Your task to perform on an android device: Go to sound settings Image 0: 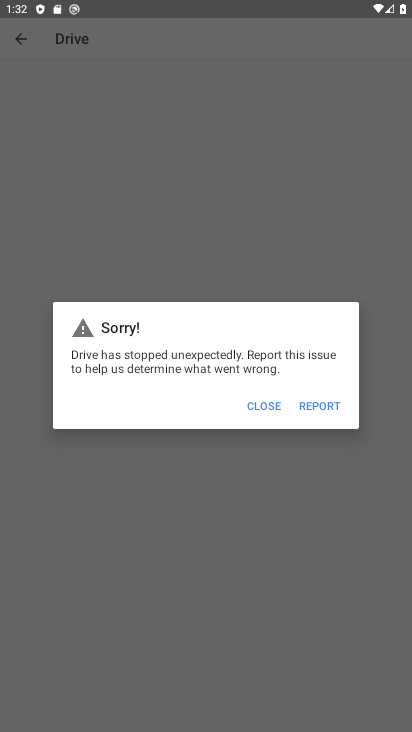
Step 0: press home button
Your task to perform on an android device: Go to sound settings Image 1: 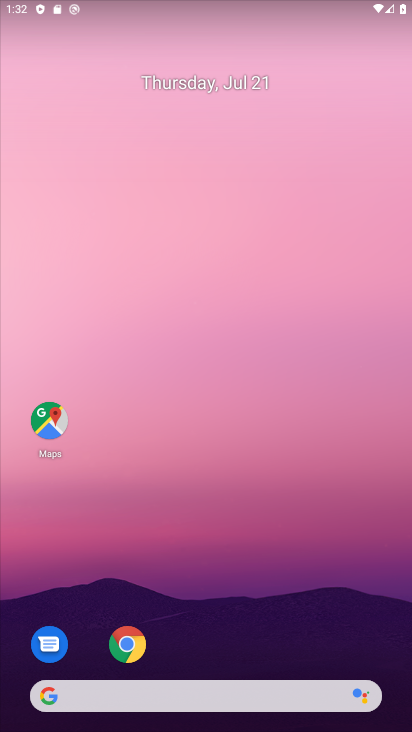
Step 1: drag from (274, 608) to (260, 104)
Your task to perform on an android device: Go to sound settings Image 2: 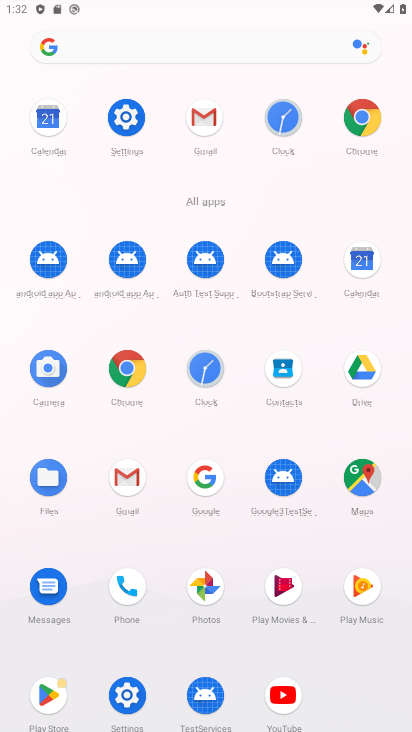
Step 2: click (122, 702)
Your task to perform on an android device: Go to sound settings Image 3: 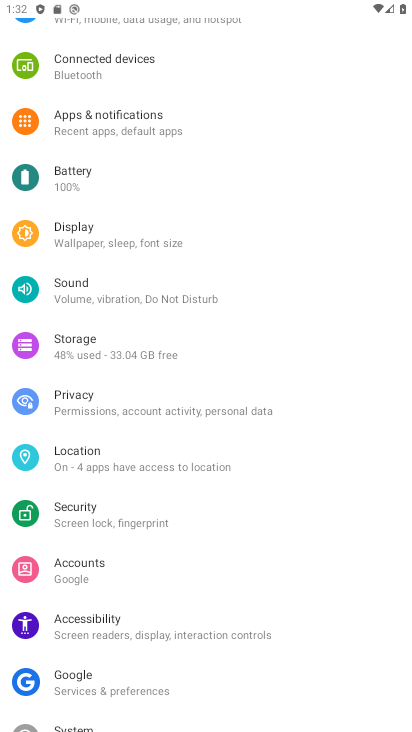
Step 3: click (102, 288)
Your task to perform on an android device: Go to sound settings Image 4: 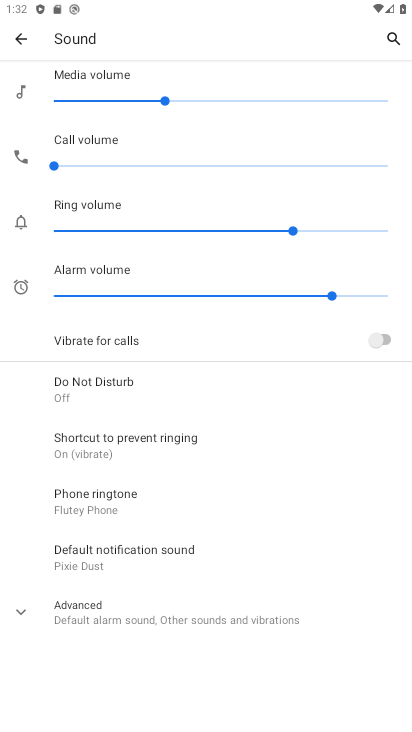
Step 4: task complete